Your task to perform on an android device: Go to network settings Image 0: 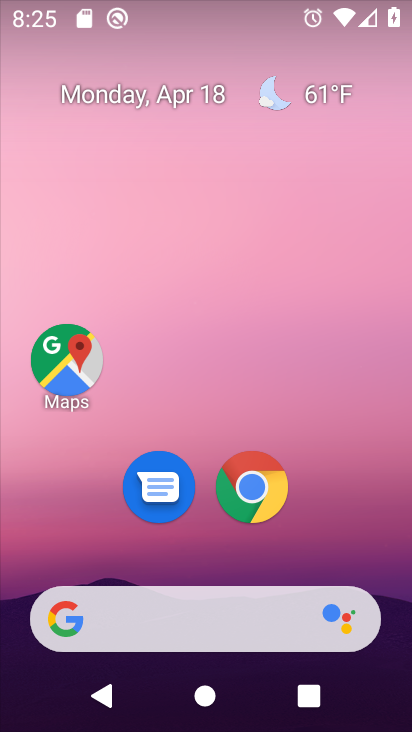
Step 0: press home button
Your task to perform on an android device: Go to network settings Image 1: 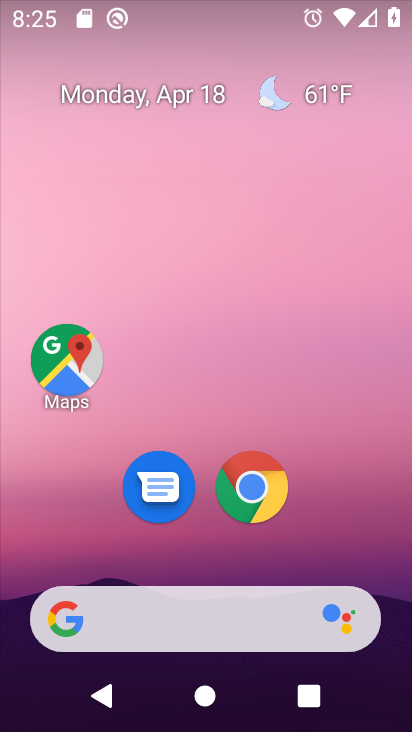
Step 1: drag from (211, 540) to (258, 3)
Your task to perform on an android device: Go to network settings Image 2: 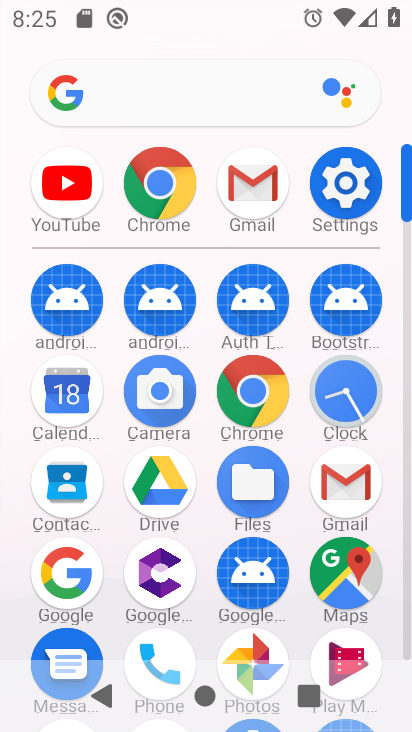
Step 2: click (345, 177)
Your task to perform on an android device: Go to network settings Image 3: 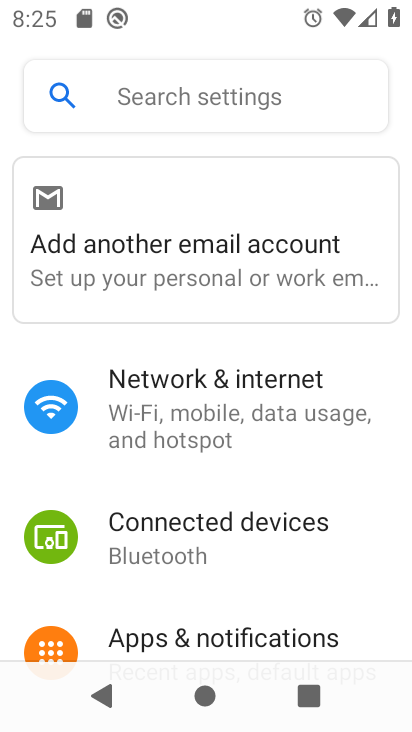
Step 3: click (96, 405)
Your task to perform on an android device: Go to network settings Image 4: 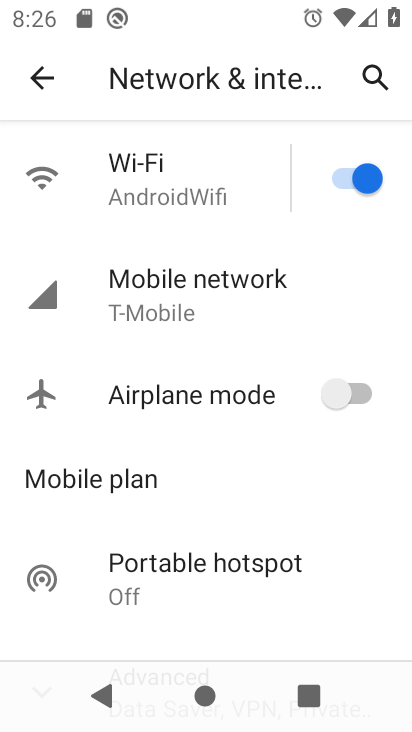
Step 4: drag from (214, 505) to (240, 164)
Your task to perform on an android device: Go to network settings Image 5: 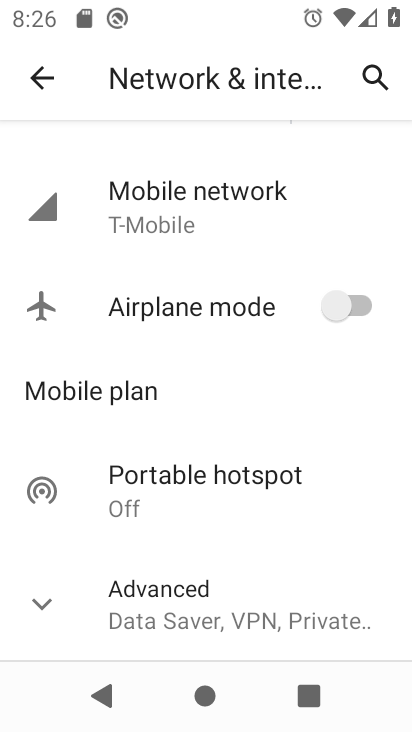
Step 5: click (39, 598)
Your task to perform on an android device: Go to network settings Image 6: 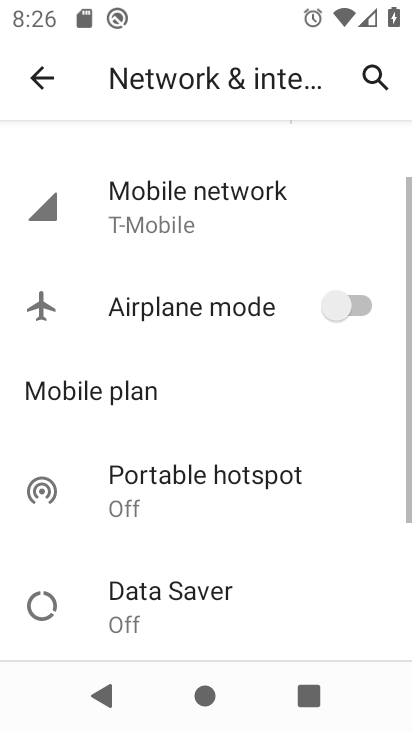
Step 6: task complete